Your task to perform on an android device: Is it going to rain tomorrow? Image 0: 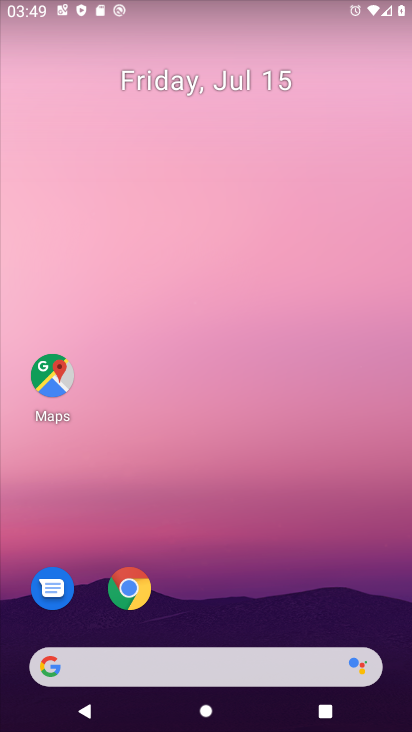
Step 0: drag from (171, 676) to (231, 127)
Your task to perform on an android device: Is it going to rain tomorrow? Image 1: 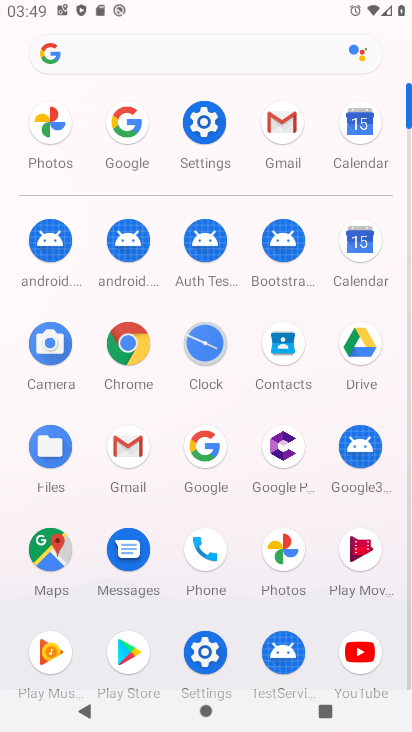
Step 1: click (121, 120)
Your task to perform on an android device: Is it going to rain tomorrow? Image 2: 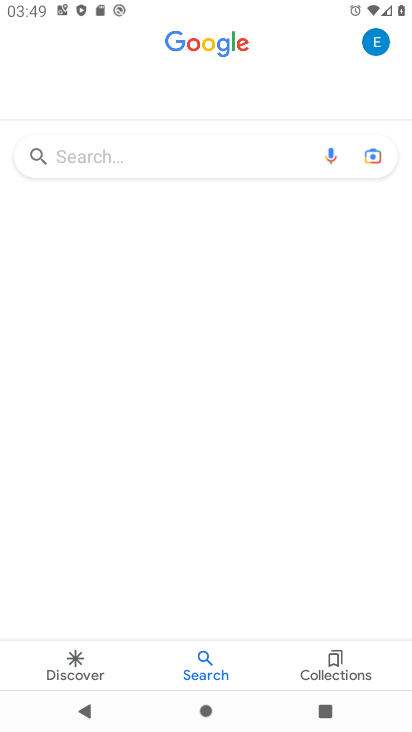
Step 2: click (120, 152)
Your task to perform on an android device: Is it going to rain tomorrow? Image 3: 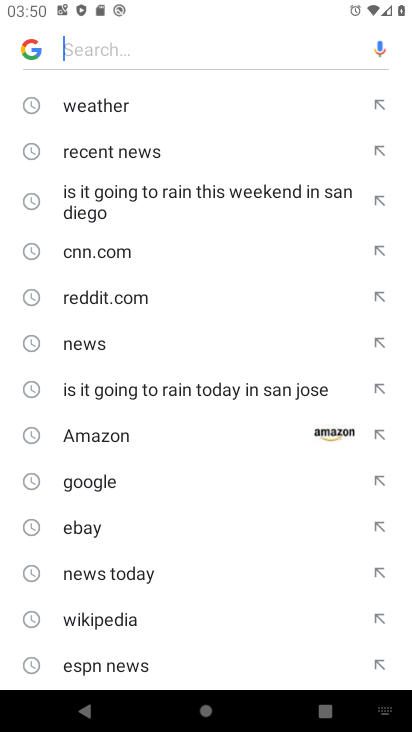
Step 3: type "Is it going to rain tomorrow?"
Your task to perform on an android device: Is it going to rain tomorrow? Image 4: 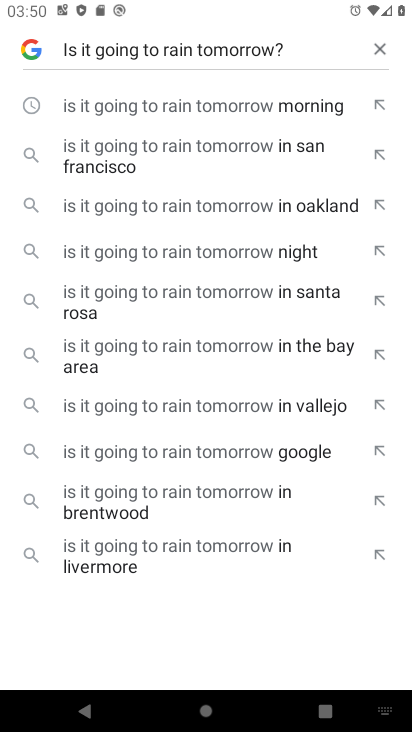
Step 4: click (209, 143)
Your task to perform on an android device: Is it going to rain tomorrow? Image 5: 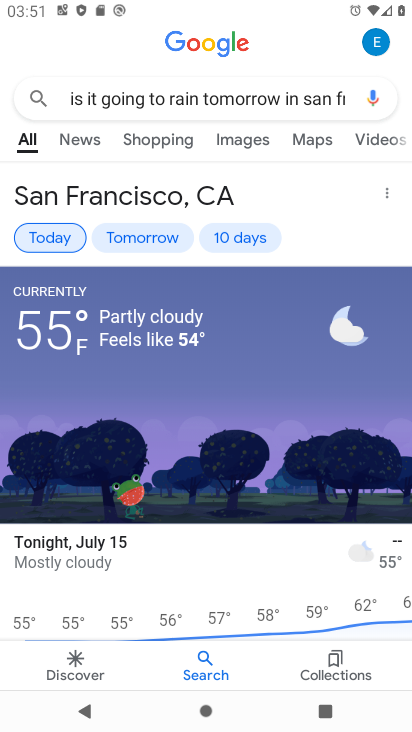
Step 5: click (153, 242)
Your task to perform on an android device: Is it going to rain tomorrow? Image 6: 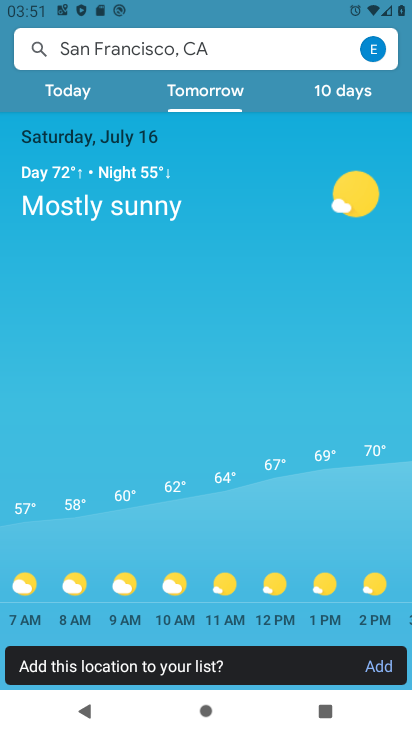
Step 6: task complete